Your task to perform on an android device: toggle javascript in the chrome app Image 0: 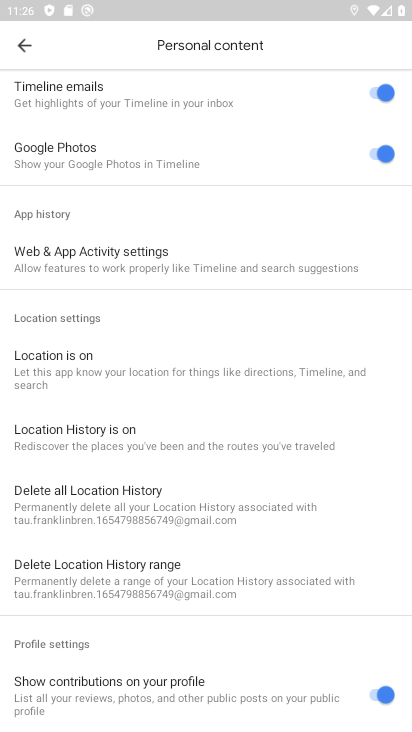
Step 0: press home button
Your task to perform on an android device: toggle javascript in the chrome app Image 1: 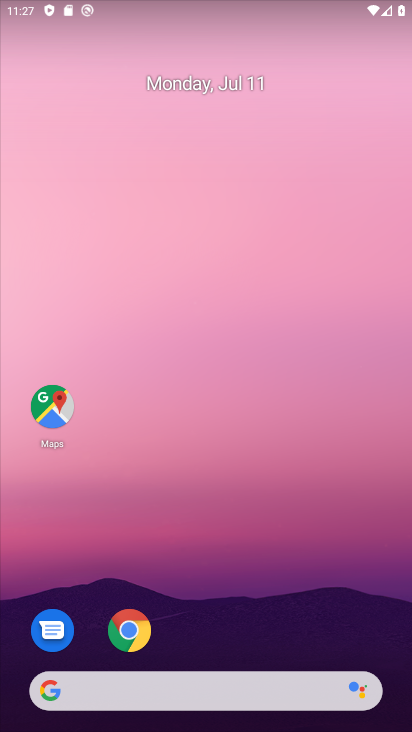
Step 1: click (129, 632)
Your task to perform on an android device: toggle javascript in the chrome app Image 2: 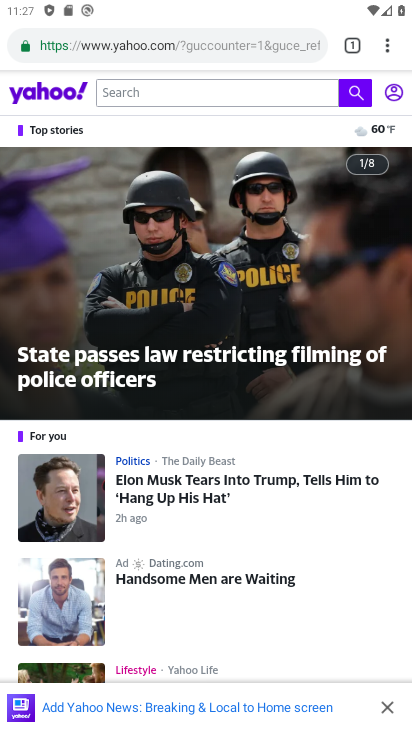
Step 2: click (388, 45)
Your task to perform on an android device: toggle javascript in the chrome app Image 3: 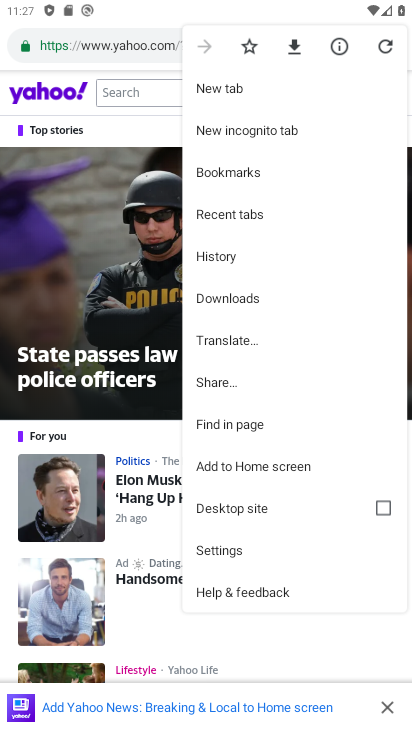
Step 3: click (230, 551)
Your task to perform on an android device: toggle javascript in the chrome app Image 4: 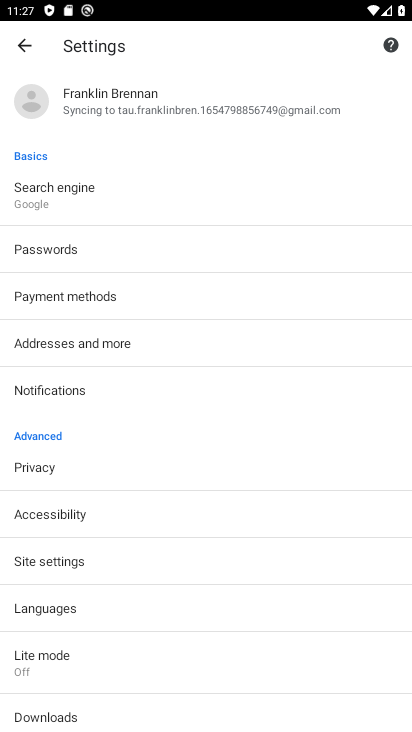
Step 4: drag from (63, 574) to (106, 484)
Your task to perform on an android device: toggle javascript in the chrome app Image 5: 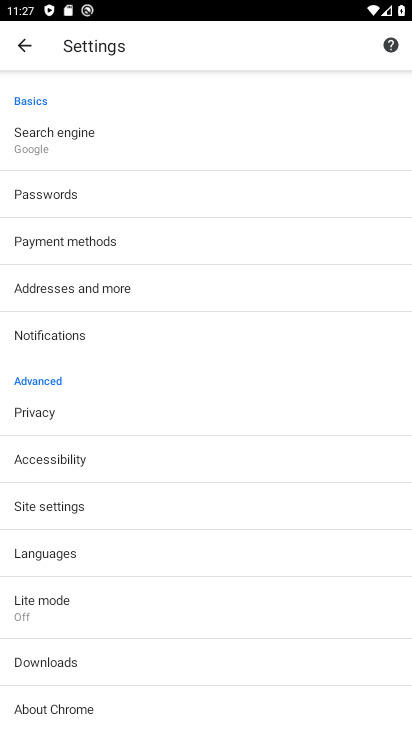
Step 5: drag from (35, 571) to (100, 492)
Your task to perform on an android device: toggle javascript in the chrome app Image 6: 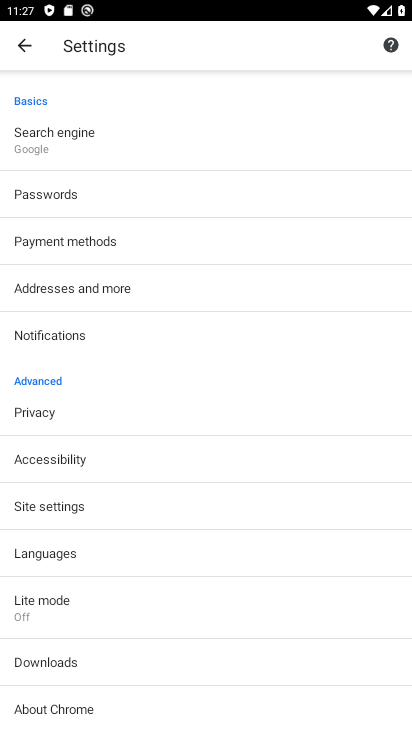
Step 6: click (57, 505)
Your task to perform on an android device: toggle javascript in the chrome app Image 7: 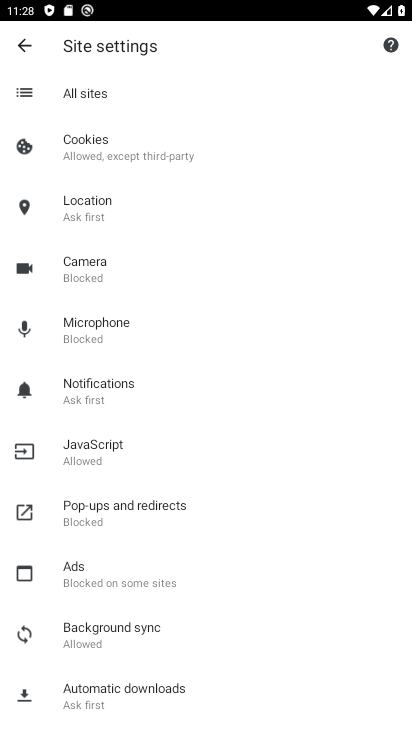
Step 7: click (96, 465)
Your task to perform on an android device: toggle javascript in the chrome app Image 8: 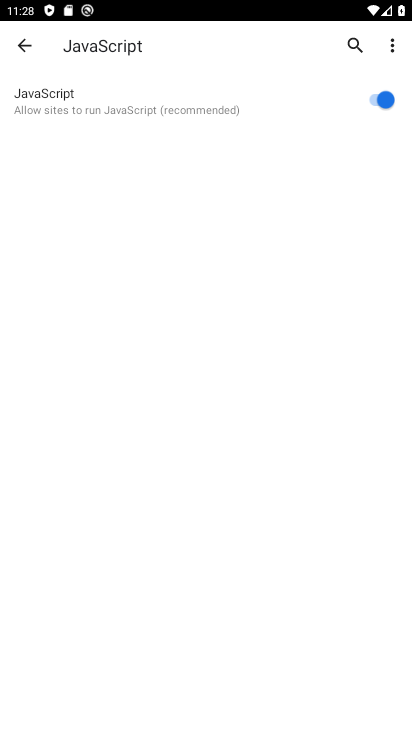
Step 8: click (376, 98)
Your task to perform on an android device: toggle javascript in the chrome app Image 9: 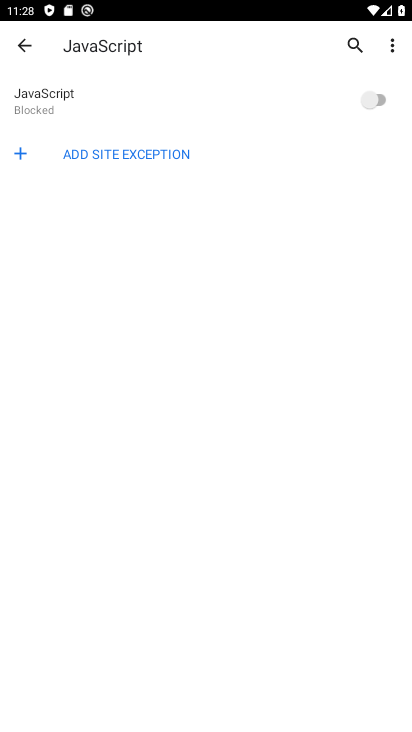
Step 9: task complete